Your task to perform on an android device: Open calendar and show me the first week of next month Image 0: 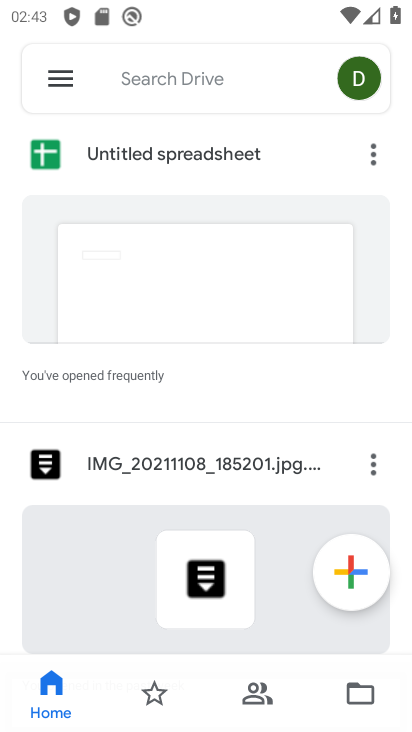
Step 0: press home button
Your task to perform on an android device: Open calendar and show me the first week of next month Image 1: 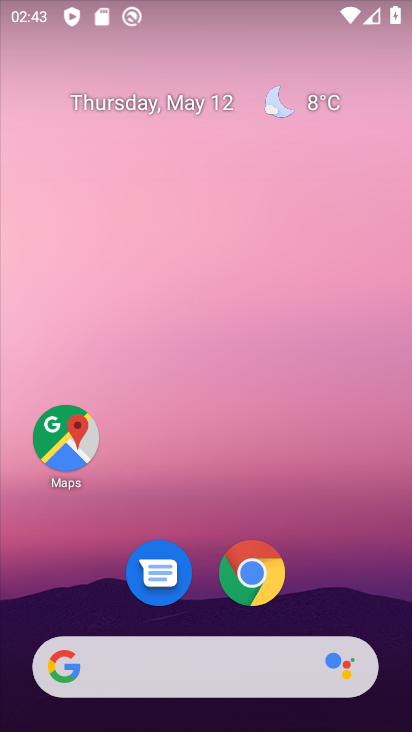
Step 1: drag from (324, 605) to (375, 21)
Your task to perform on an android device: Open calendar and show me the first week of next month Image 2: 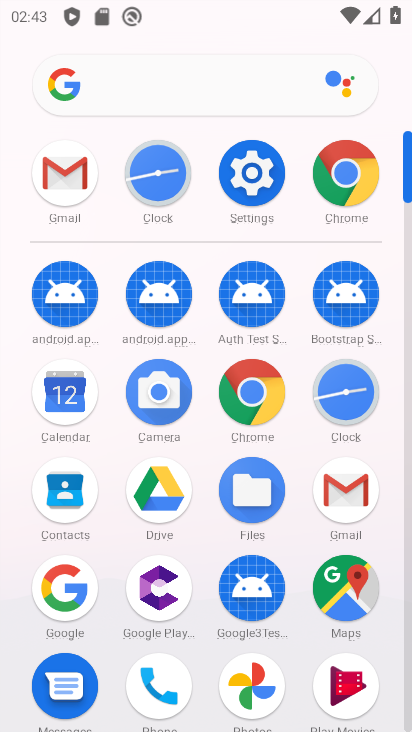
Step 2: click (59, 389)
Your task to perform on an android device: Open calendar and show me the first week of next month Image 3: 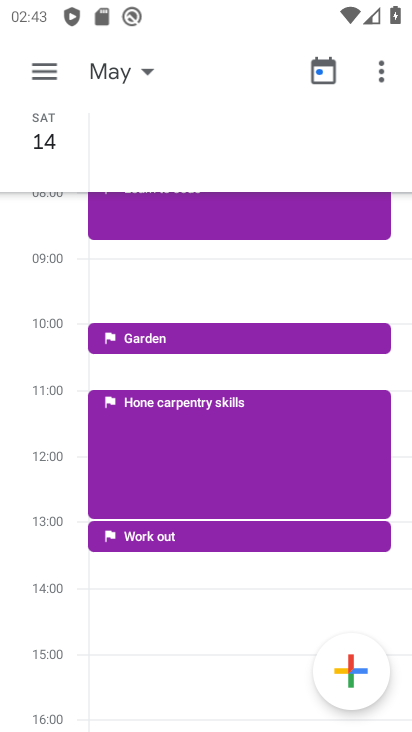
Step 3: click (143, 63)
Your task to perform on an android device: Open calendar and show me the first week of next month Image 4: 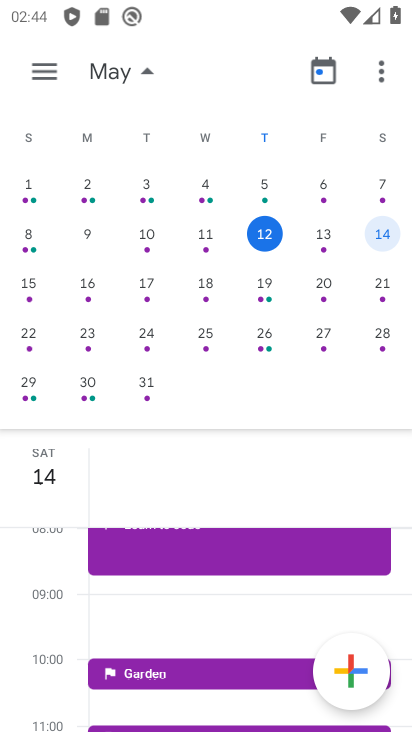
Step 4: task complete